Your task to perform on an android device: turn on wifi Image 0: 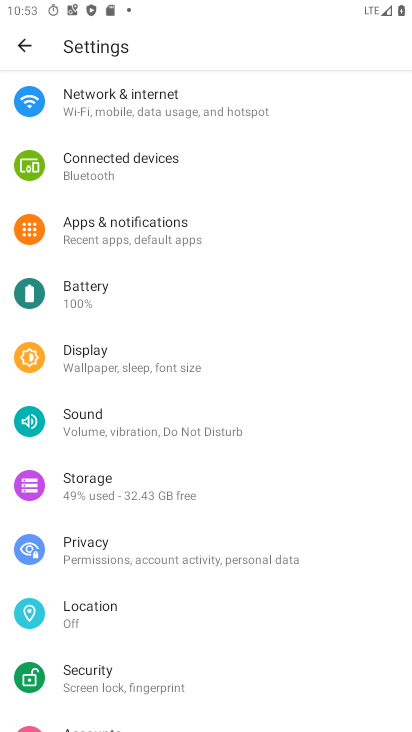
Step 0: click (134, 100)
Your task to perform on an android device: turn on wifi Image 1: 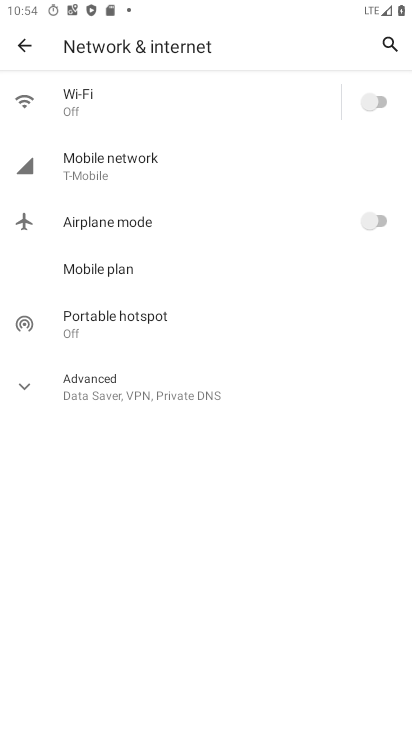
Step 1: click (380, 99)
Your task to perform on an android device: turn on wifi Image 2: 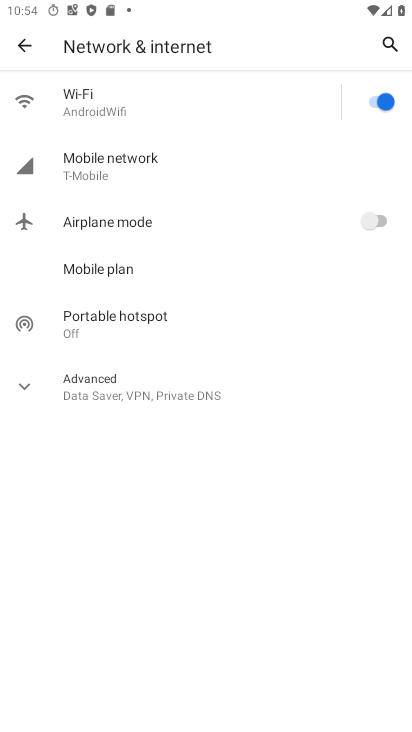
Step 2: task complete